Your task to perform on an android device: Open internet settings Image 0: 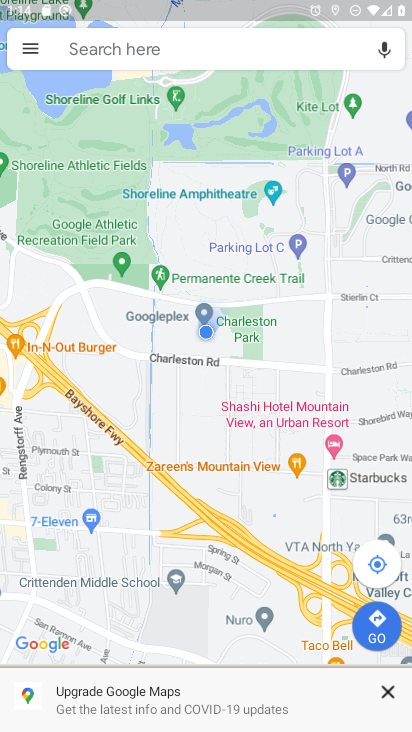
Step 0: press home button
Your task to perform on an android device: Open internet settings Image 1: 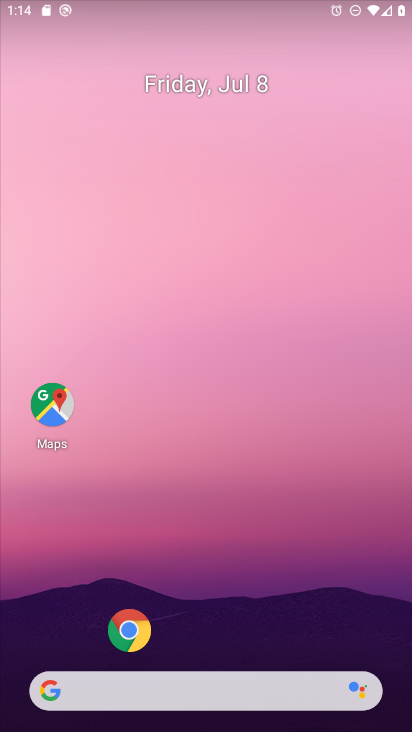
Step 1: drag from (251, 642) to (267, 78)
Your task to perform on an android device: Open internet settings Image 2: 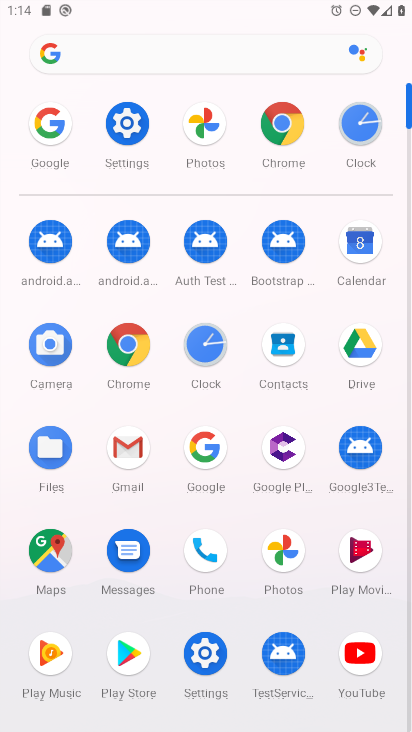
Step 2: click (142, 131)
Your task to perform on an android device: Open internet settings Image 3: 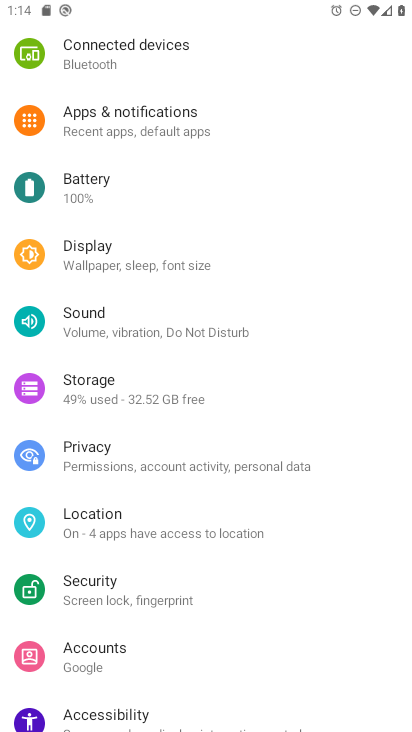
Step 3: drag from (175, 256) to (208, 654)
Your task to perform on an android device: Open internet settings Image 4: 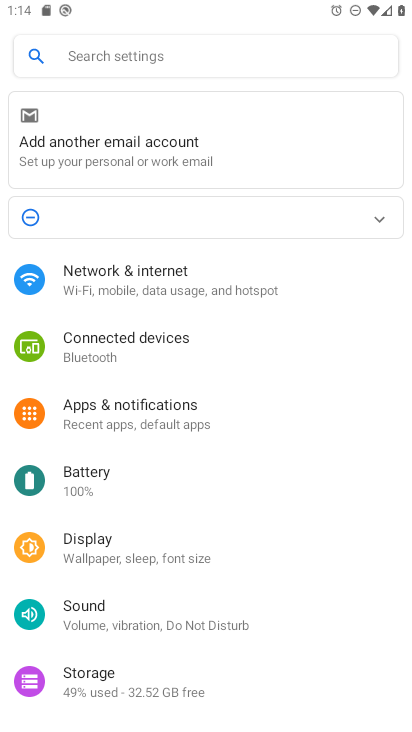
Step 4: click (219, 278)
Your task to perform on an android device: Open internet settings Image 5: 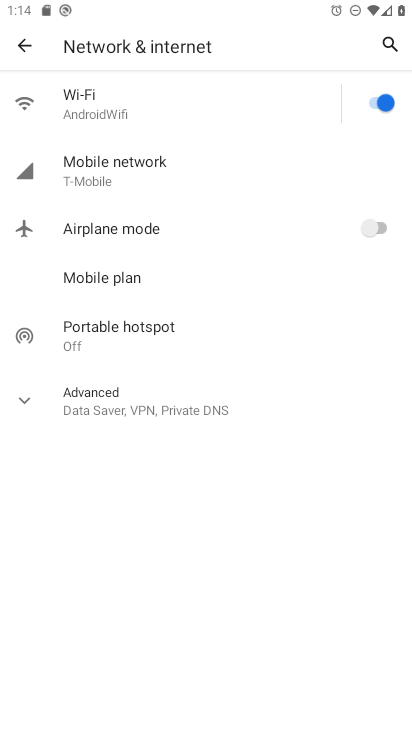
Step 5: click (149, 170)
Your task to perform on an android device: Open internet settings Image 6: 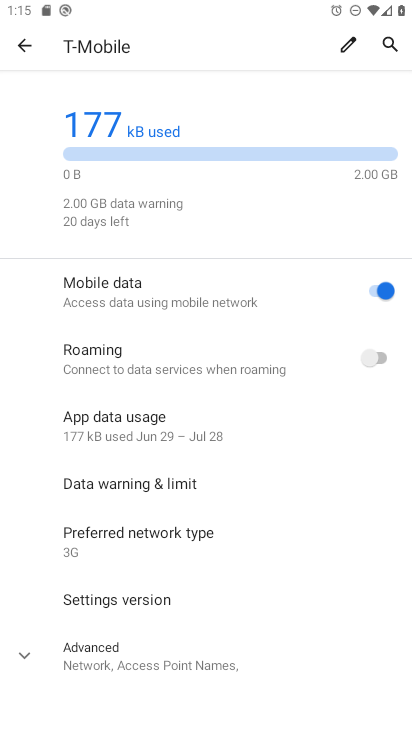
Step 6: task complete